Your task to perform on an android device: Go to wifi settings Image 0: 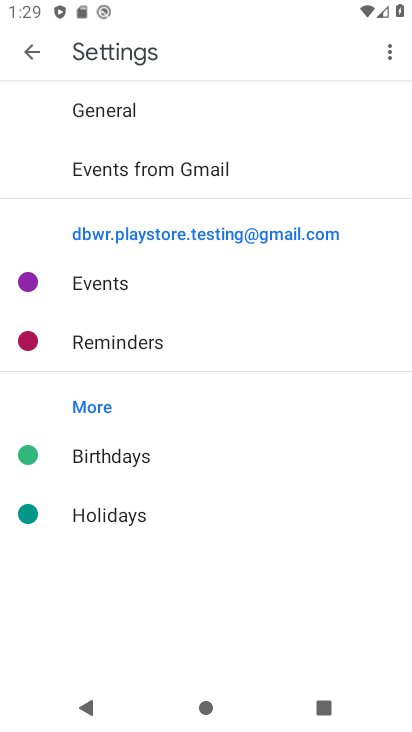
Step 0: press home button
Your task to perform on an android device: Go to wifi settings Image 1: 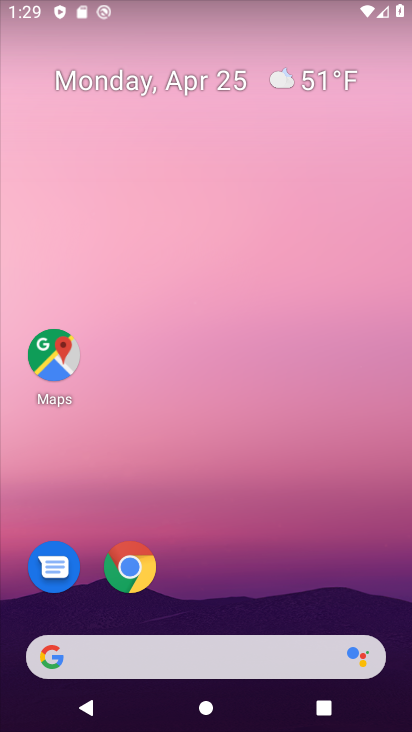
Step 1: drag from (100, 9) to (194, 470)
Your task to perform on an android device: Go to wifi settings Image 2: 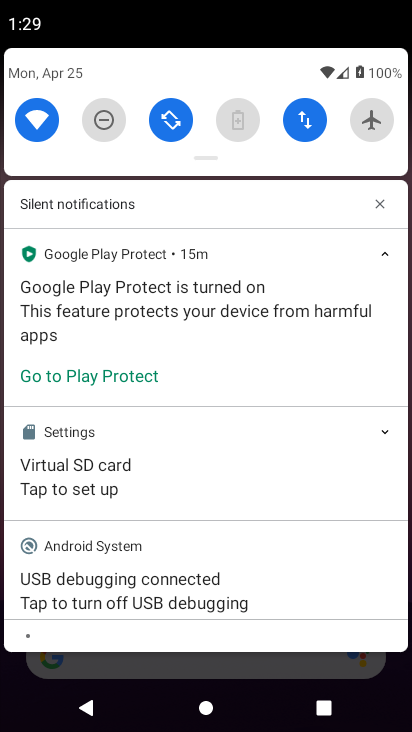
Step 2: click (38, 119)
Your task to perform on an android device: Go to wifi settings Image 3: 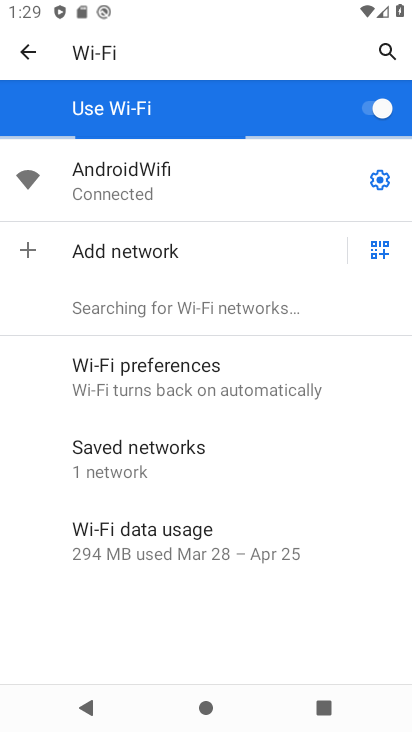
Step 3: task complete